Your task to perform on an android device: Open the phone app and click the voicemail tab. Image 0: 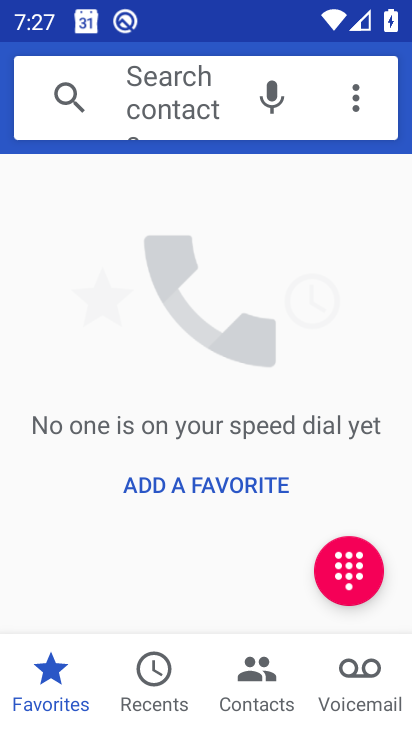
Step 0: click (373, 668)
Your task to perform on an android device: Open the phone app and click the voicemail tab. Image 1: 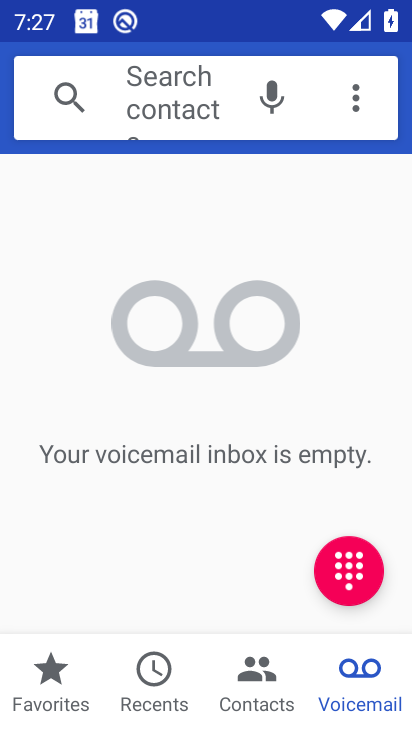
Step 1: task complete